Your task to perform on an android device: Open location settings Image 0: 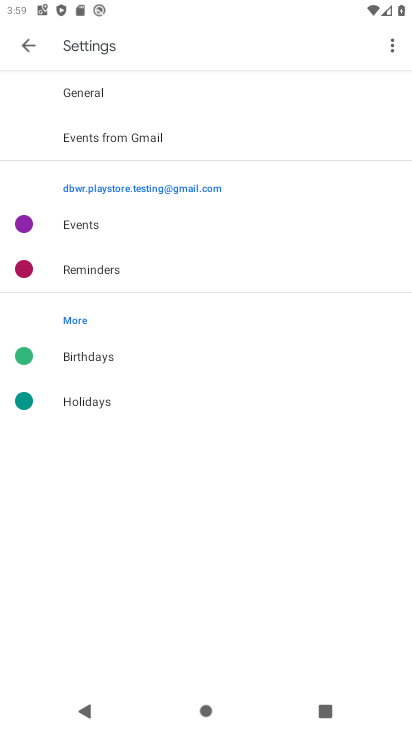
Step 0: press home button
Your task to perform on an android device: Open location settings Image 1: 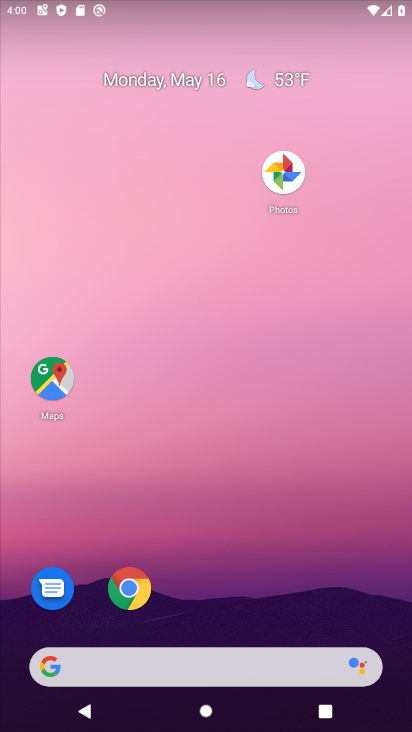
Step 1: drag from (192, 632) to (200, 122)
Your task to perform on an android device: Open location settings Image 2: 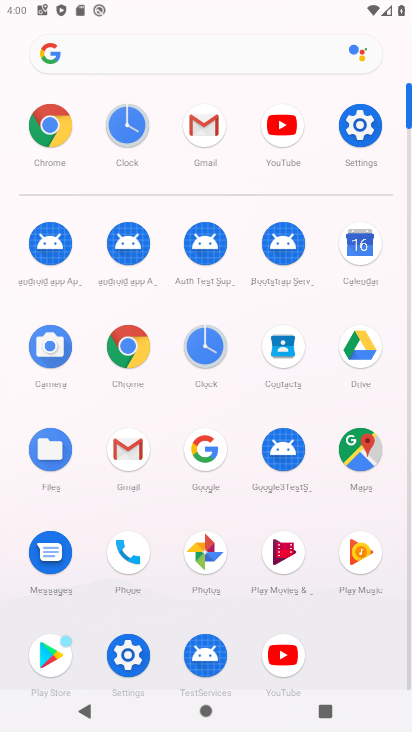
Step 2: click (366, 117)
Your task to perform on an android device: Open location settings Image 3: 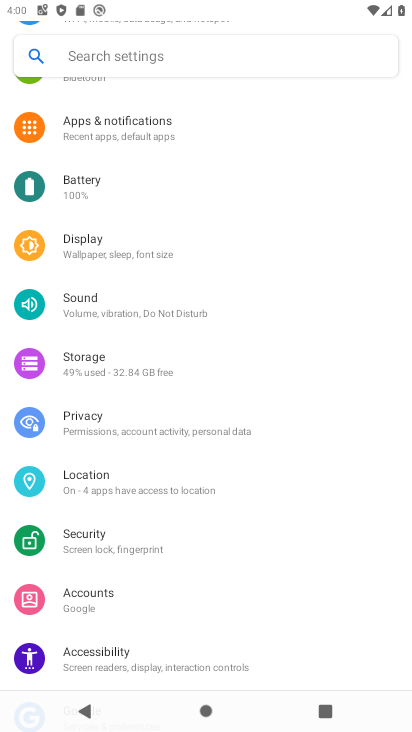
Step 3: click (126, 478)
Your task to perform on an android device: Open location settings Image 4: 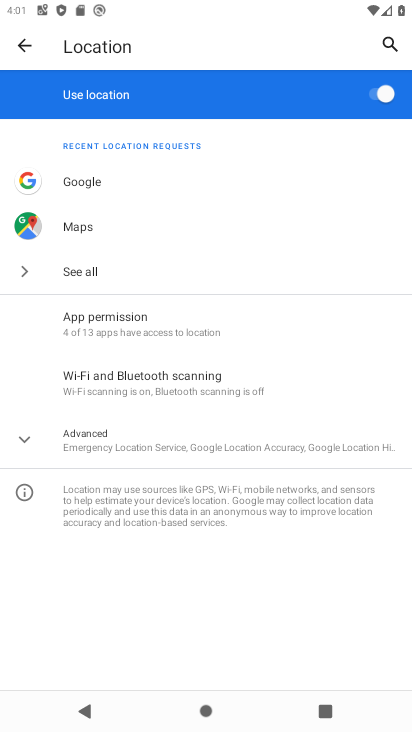
Step 4: task complete